Your task to perform on an android device: Go to settings Image 0: 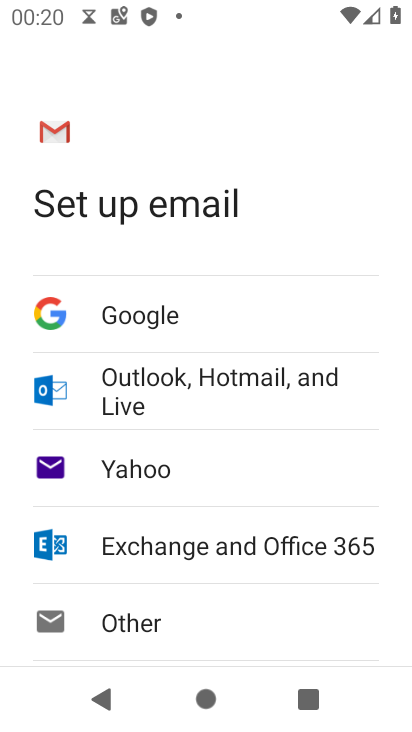
Step 0: press home button
Your task to perform on an android device: Go to settings Image 1: 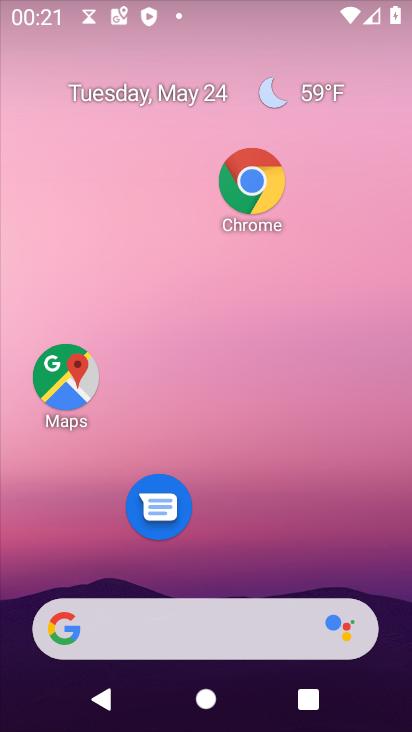
Step 1: drag from (218, 559) to (266, 214)
Your task to perform on an android device: Go to settings Image 2: 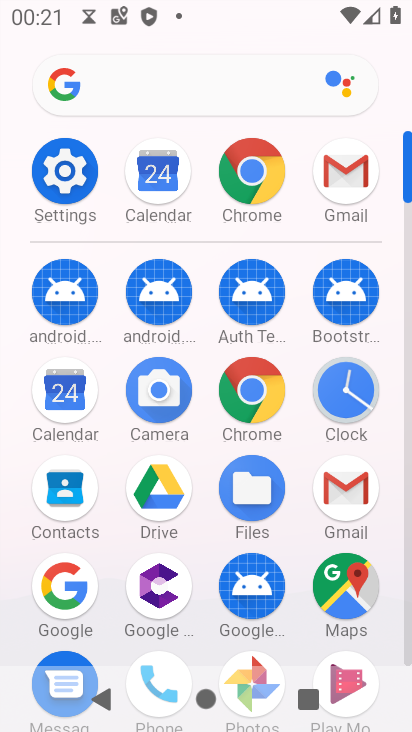
Step 2: click (56, 145)
Your task to perform on an android device: Go to settings Image 3: 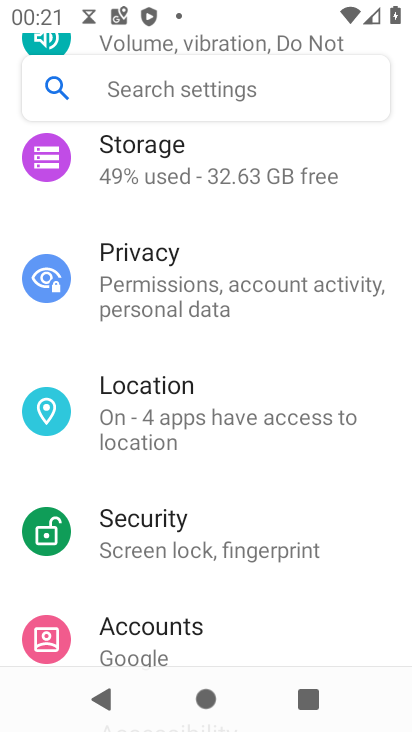
Step 3: task complete